Your task to perform on an android device: What's on my calendar today? Image 0: 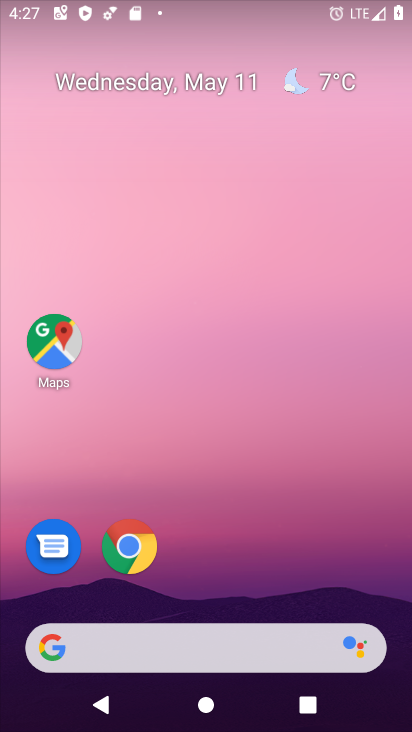
Step 0: drag from (220, 578) to (249, 35)
Your task to perform on an android device: What's on my calendar today? Image 1: 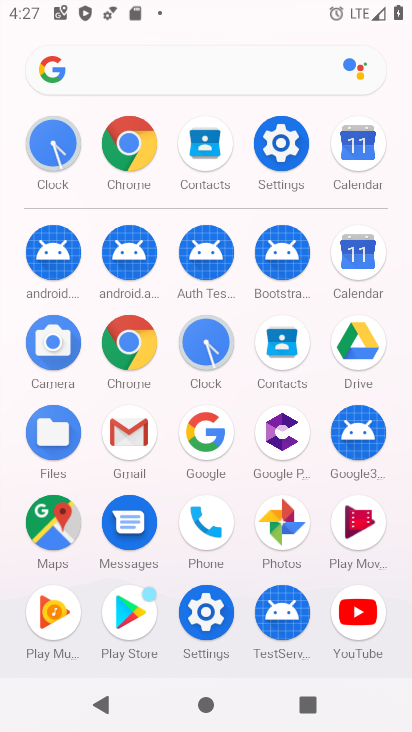
Step 1: click (366, 267)
Your task to perform on an android device: What's on my calendar today? Image 2: 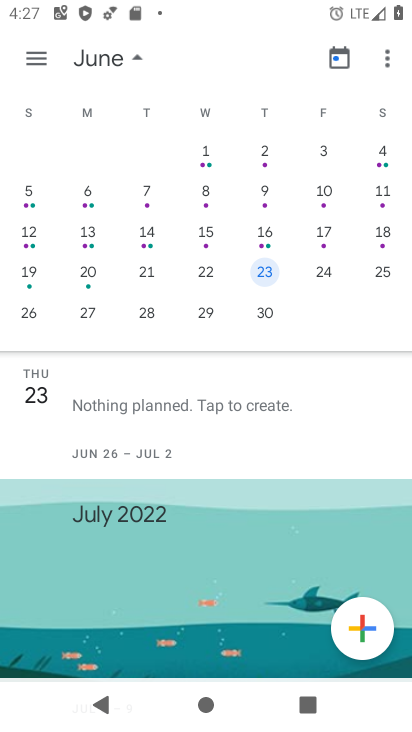
Step 2: drag from (77, 261) to (410, 295)
Your task to perform on an android device: What's on my calendar today? Image 3: 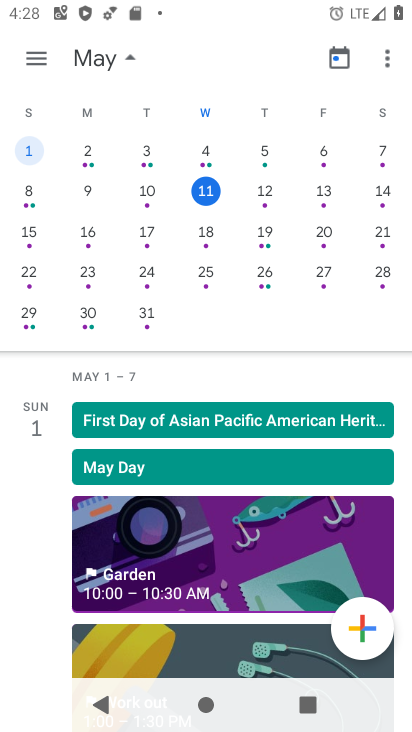
Step 3: click (199, 197)
Your task to perform on an android device: What's on my calendar today? Image 4: 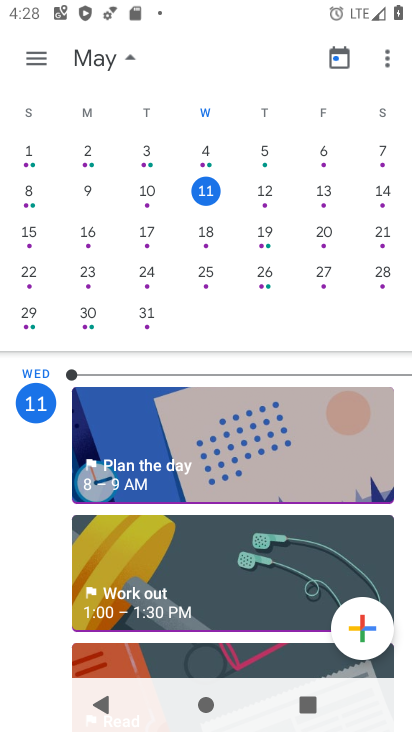
Step 4: task complete